Your task to perform on an android device: Open wifi settings Image 0: 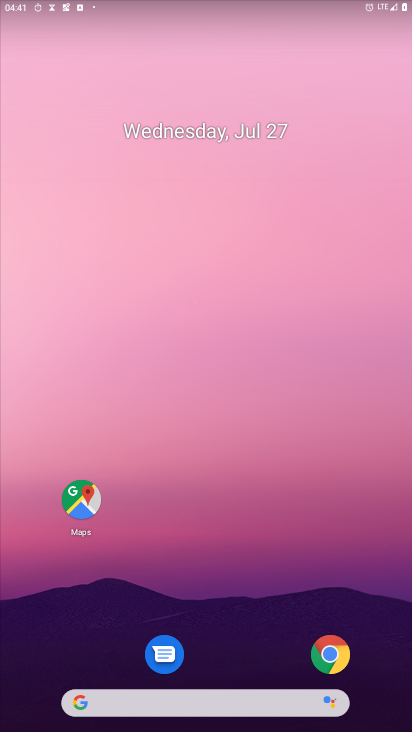
Step 0: drag from (232, 629) to (310, 91)
Your task to perform on an android device: Open wifi settings Image 1: 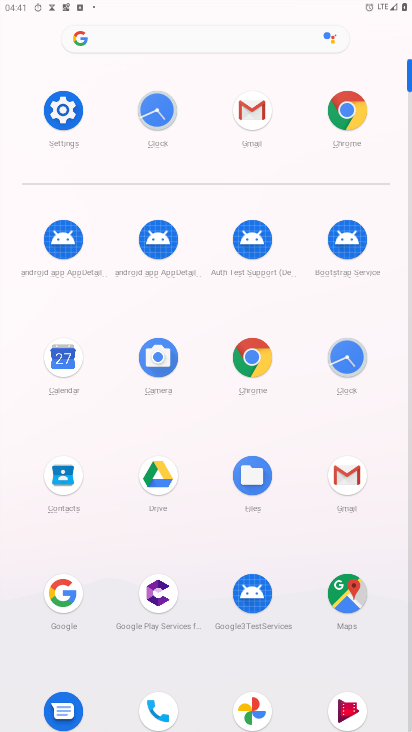
Step 1: click (63, 105)
Your task to perform on an android device: Open wifi settings Image 2: 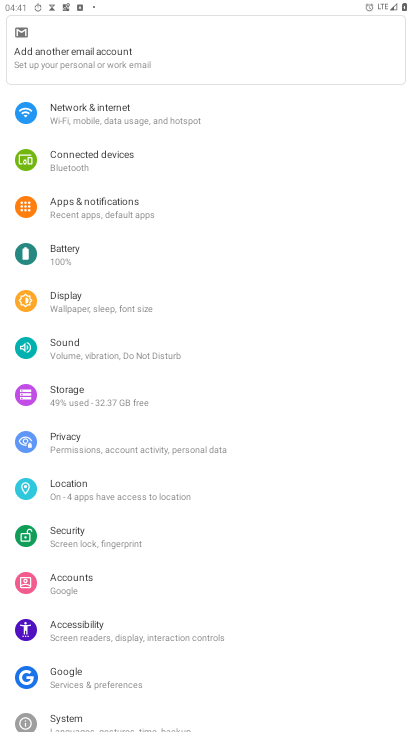
Step 2: click (119, 121)
Your task to perform on an android device: Open wifi settings Image 3: 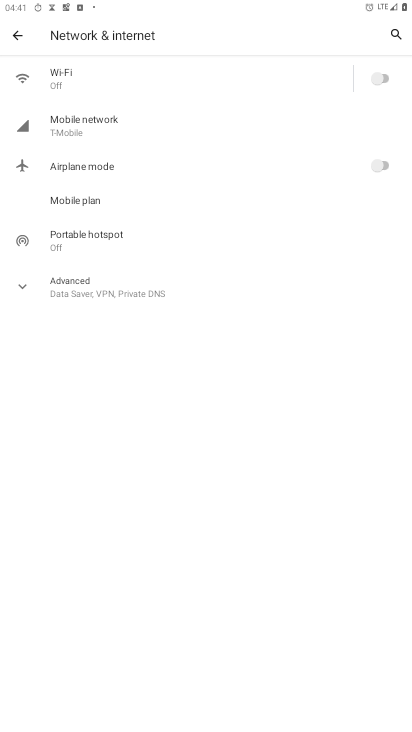
Step 3: click (77, 78)
Your task to perform on an android device: Open wifi settings Image 4: 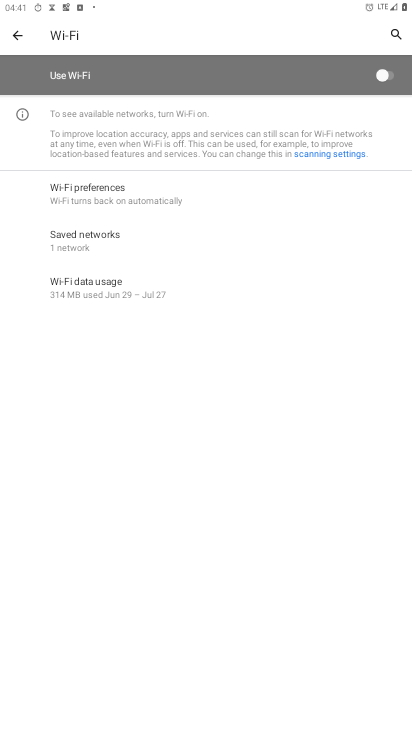
Step 4: task complete